Your task to perform on an android device: add a contact Image 0: 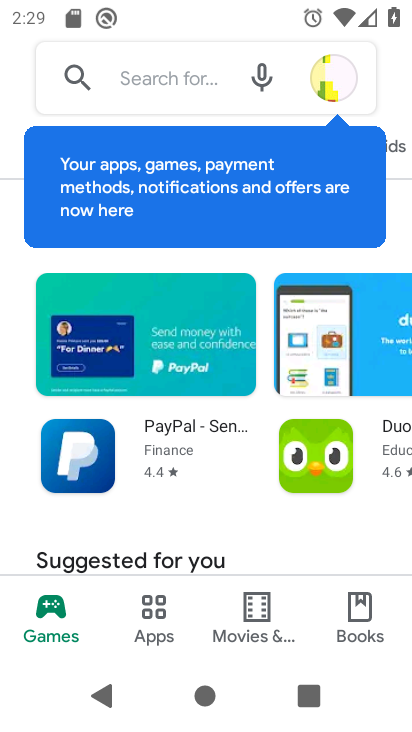
Step 0: press home button
Your task to perform on an android device: add a contact Image 1: 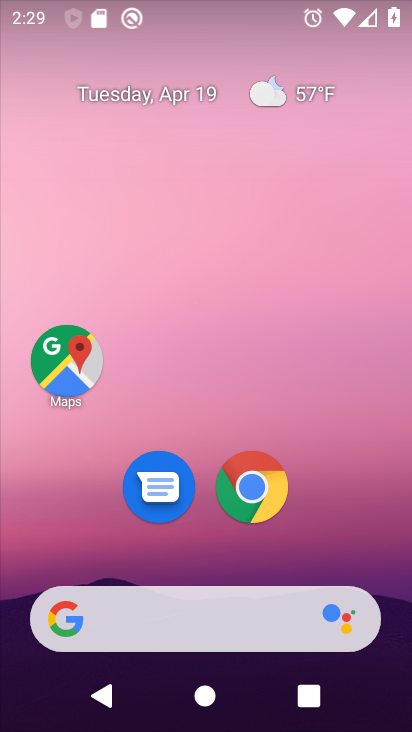
Step 1: drag from (381, 507) to (392, 121)
Your task to perform on an android device: add a contact Image 2: 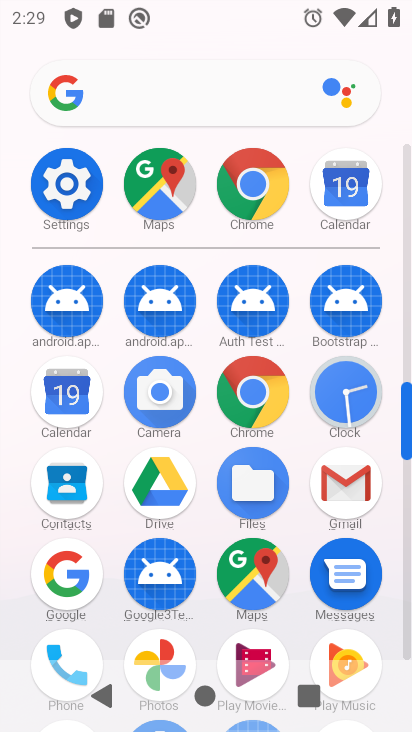
Step 2: click (67, 474)
Your task to perform on an android device: add a contact Image 3: 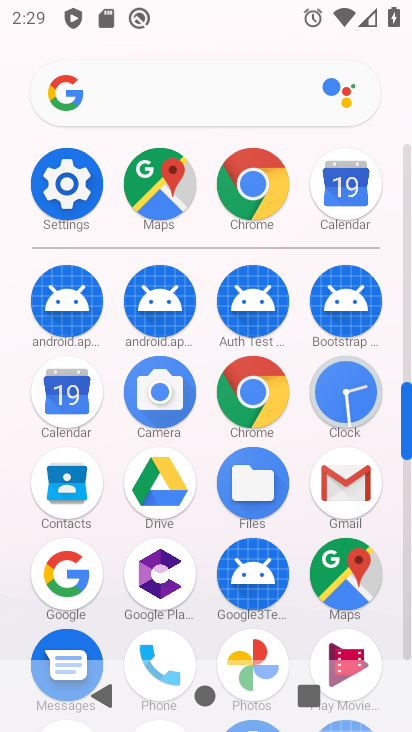
Step 3: click (57, 495)
Your task to perform on an android device: add a contact Image 4: 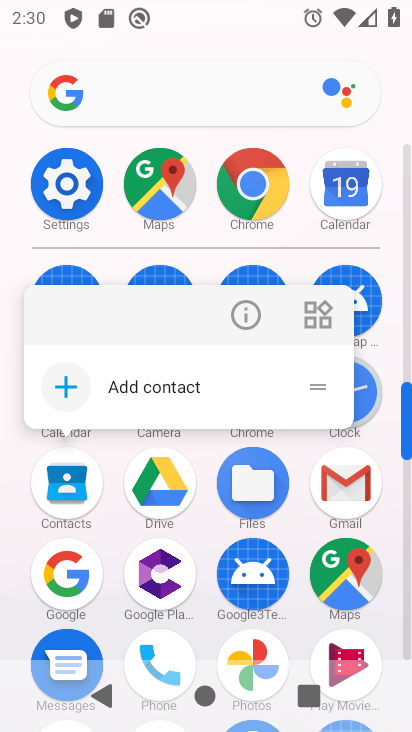
Step 4: click (71, 485)
Your task to perform on an android device: add a contact Image 5: 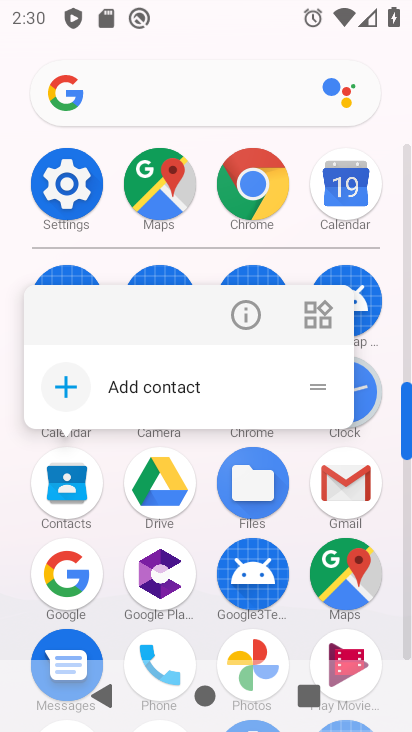
Step 5: click (72, 486)
Your task to perform on an android device: add a contact Image 6: 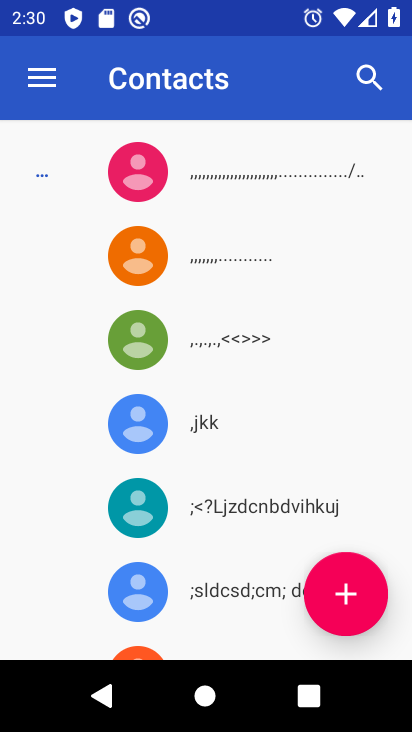
Step 6: click (362, 581)
Your task to perform on an android device: add a contact Image 7: 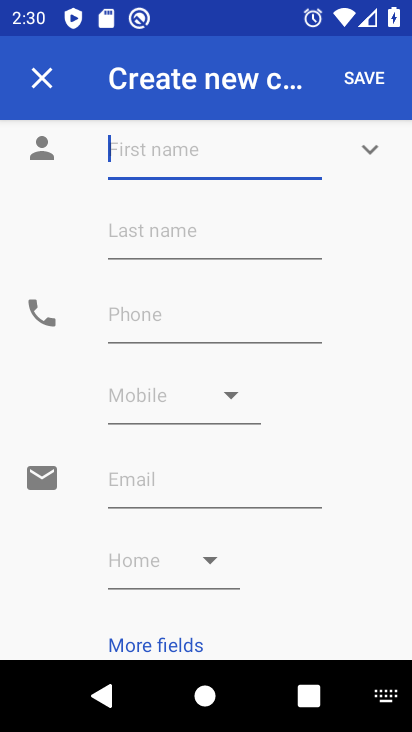
Step 7: type "ajit"
Your task to perform on an android device: add a contact Image 8: 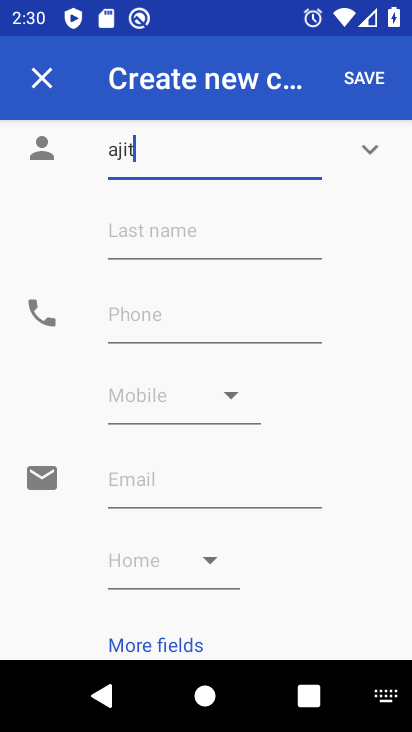
Step 8: click (196, 321)
Your task to perform on an android device: add a contact Image 9: 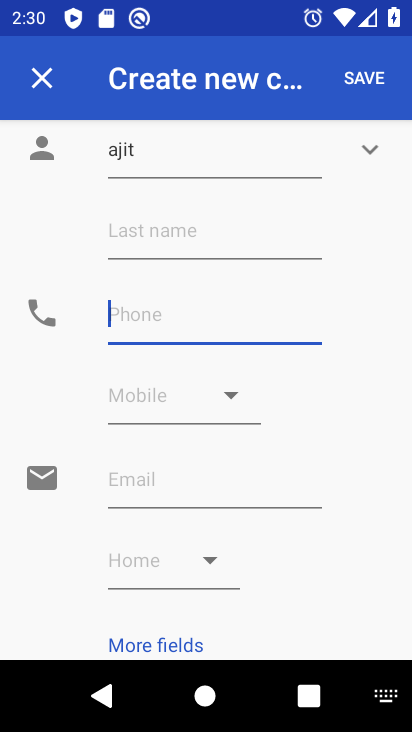
Step 9: type "857484738"
Your task to perform on an android device: add a contact Image 10: 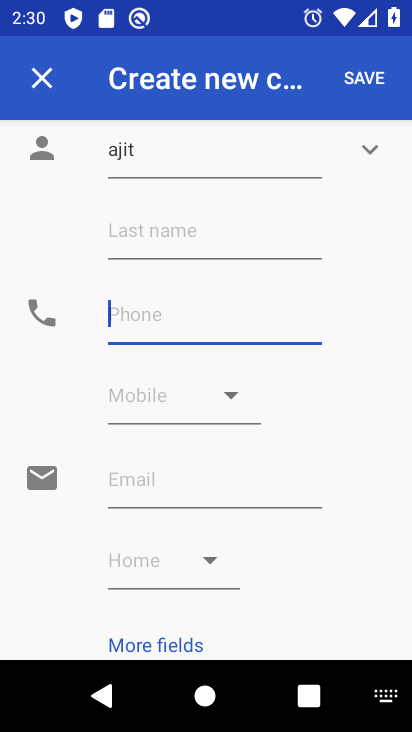
Step 10: click (357, 74)
Your task to perform on an android device: add a contact Image 11: 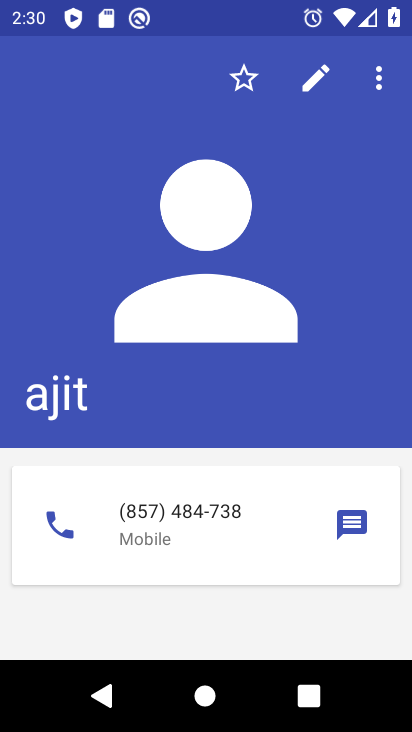
Step 11: task complete